Your task to perform on an android device: turn on airplane mode Image 0: 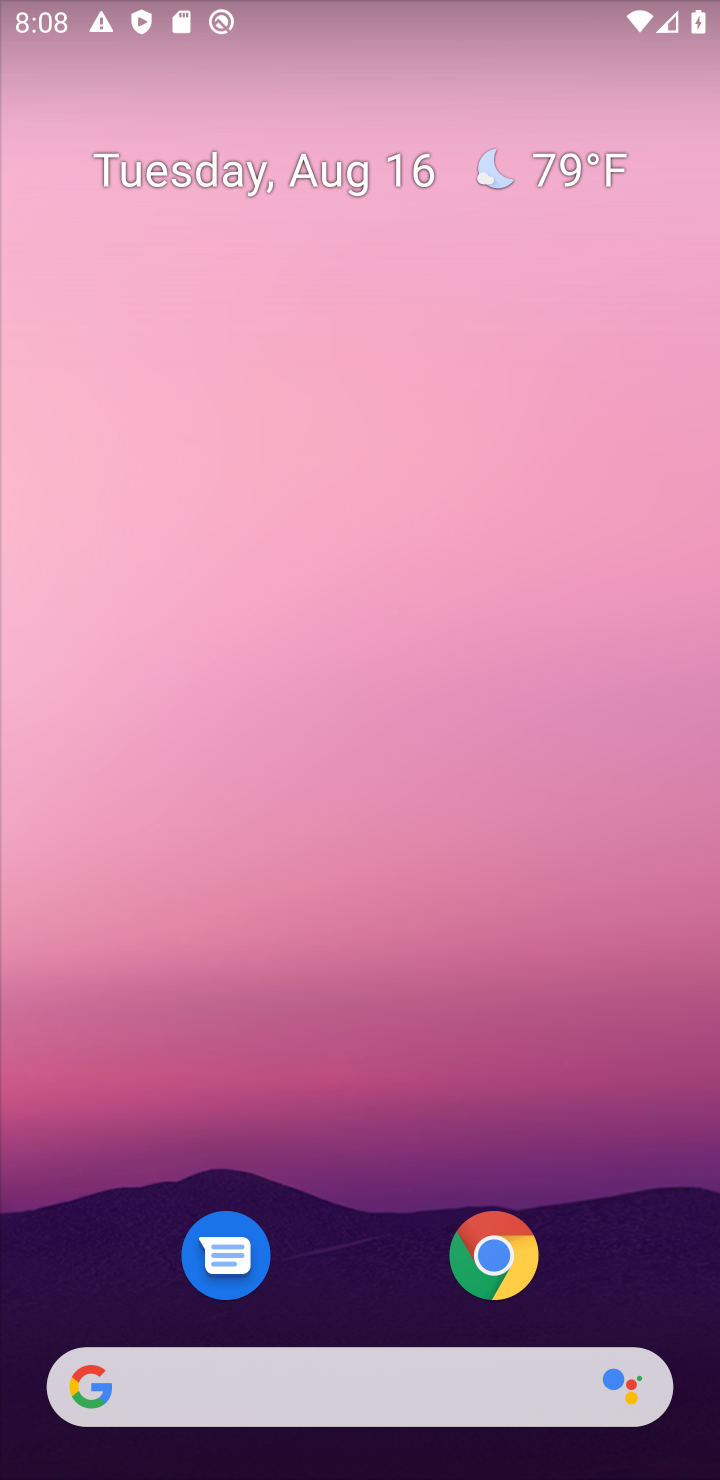
Step 0: drag from (429, 1339) to (359, 196)
Your task to perform on an android device: turn on airplane mode Image 1: 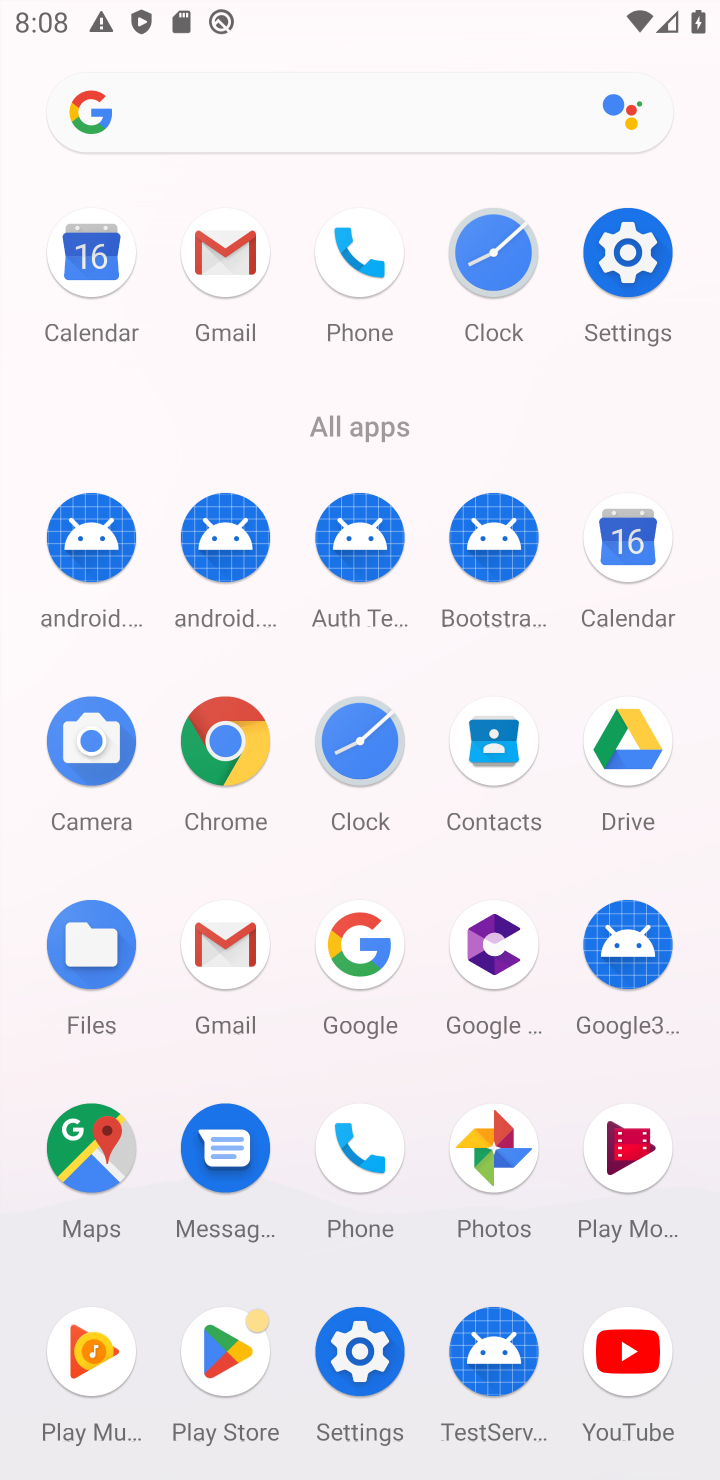
Step 1: click (641, 248)
Your task to perform on an android device: turn on airplane mode Image 2: 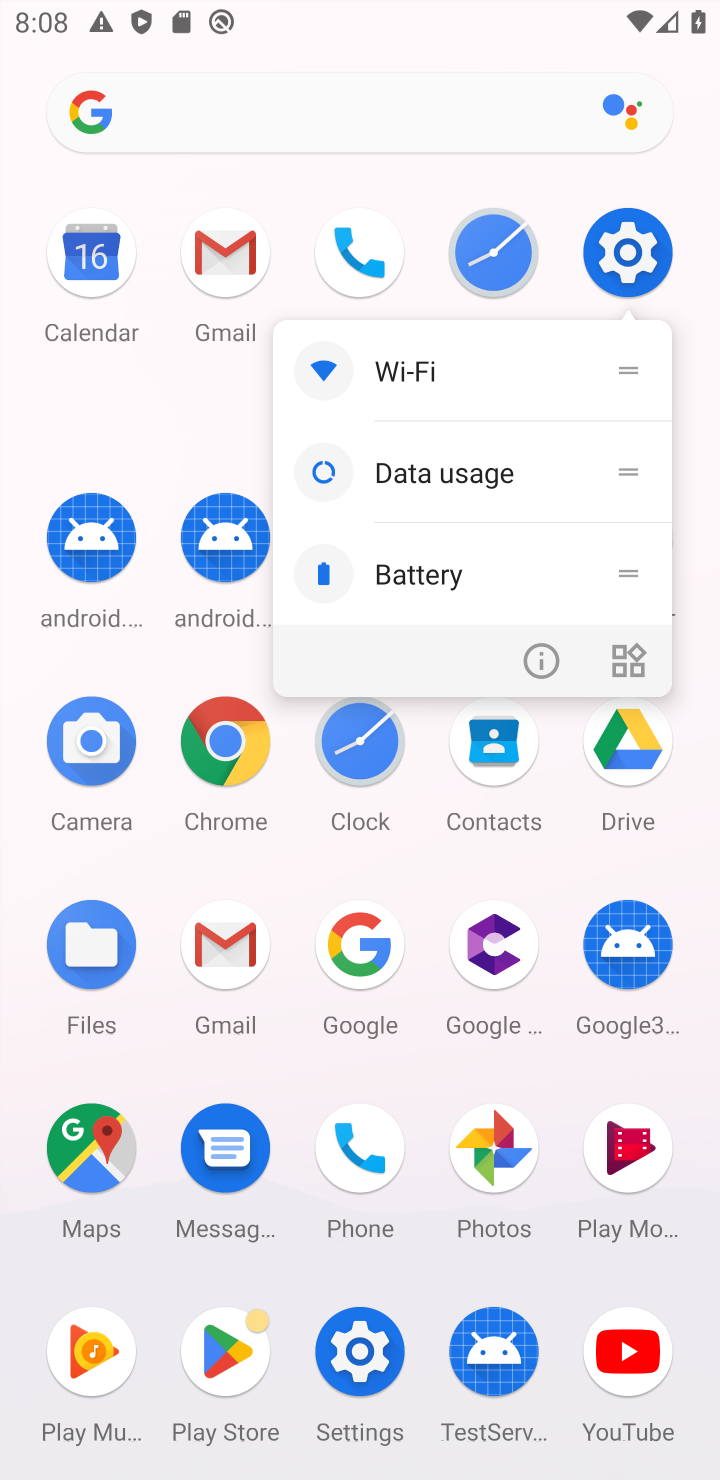
Step 2: click (641, 248)
Your task to perform on an android device: turn on airplane mode Image 3: 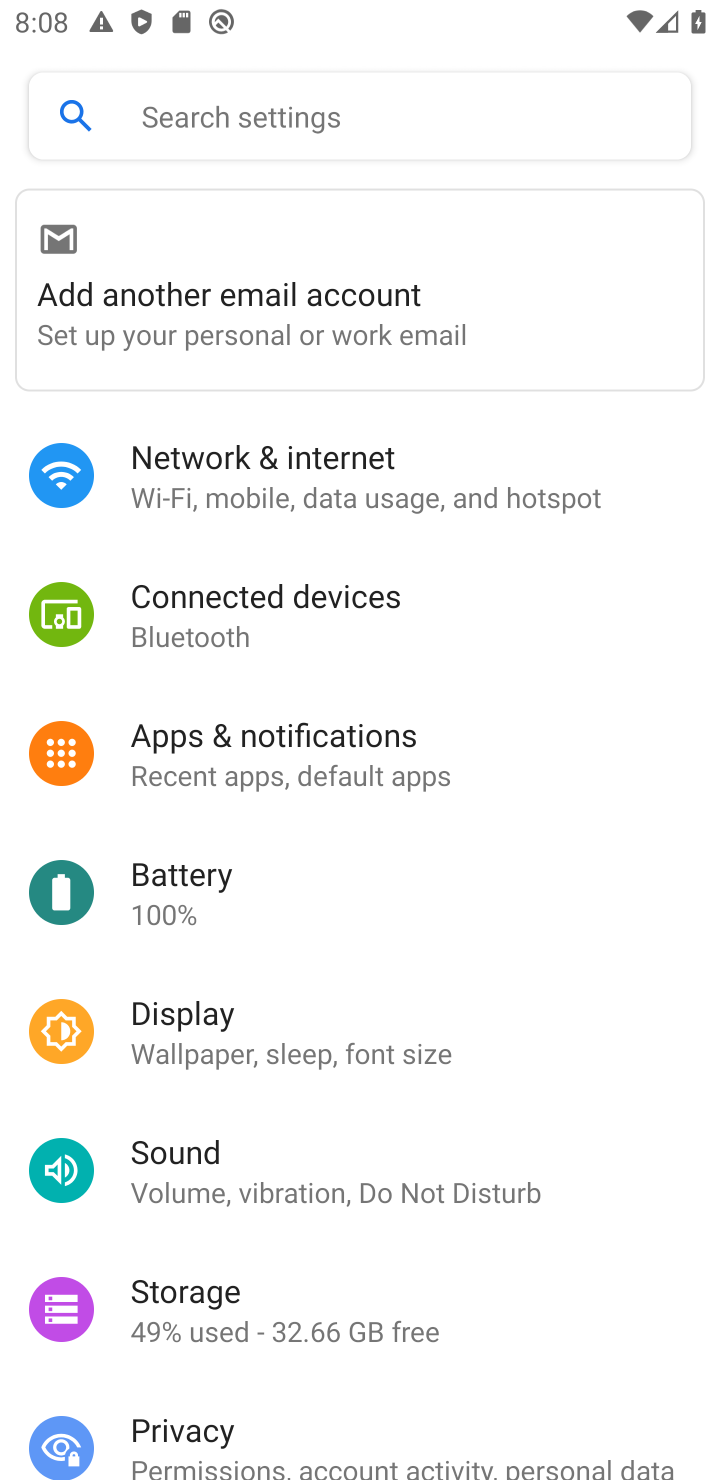
Step 3: click (344, 436)
Your task to perform on an android device: turn on airplane mode Image 4: 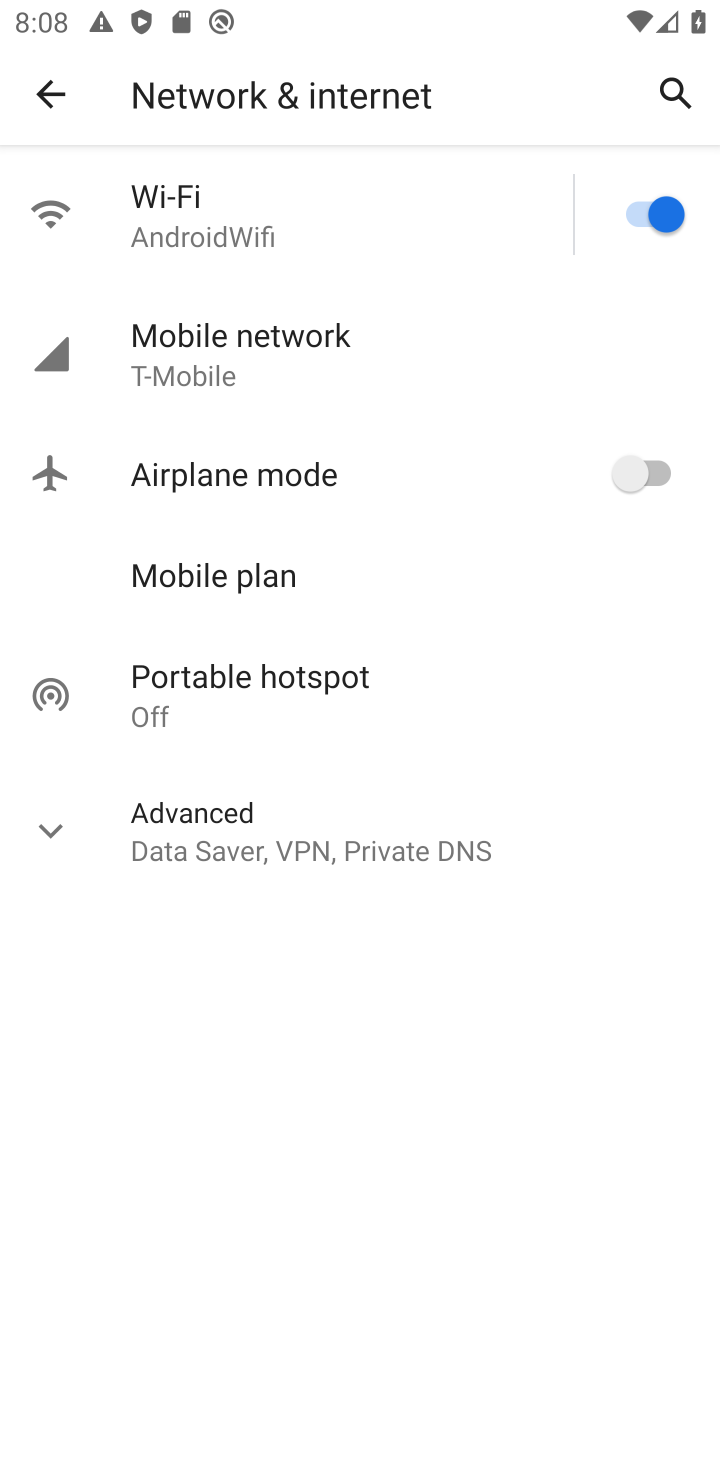
Step 4: click (641, 478)
Your task to perform on an android device: turn on airplane mode Image 5: 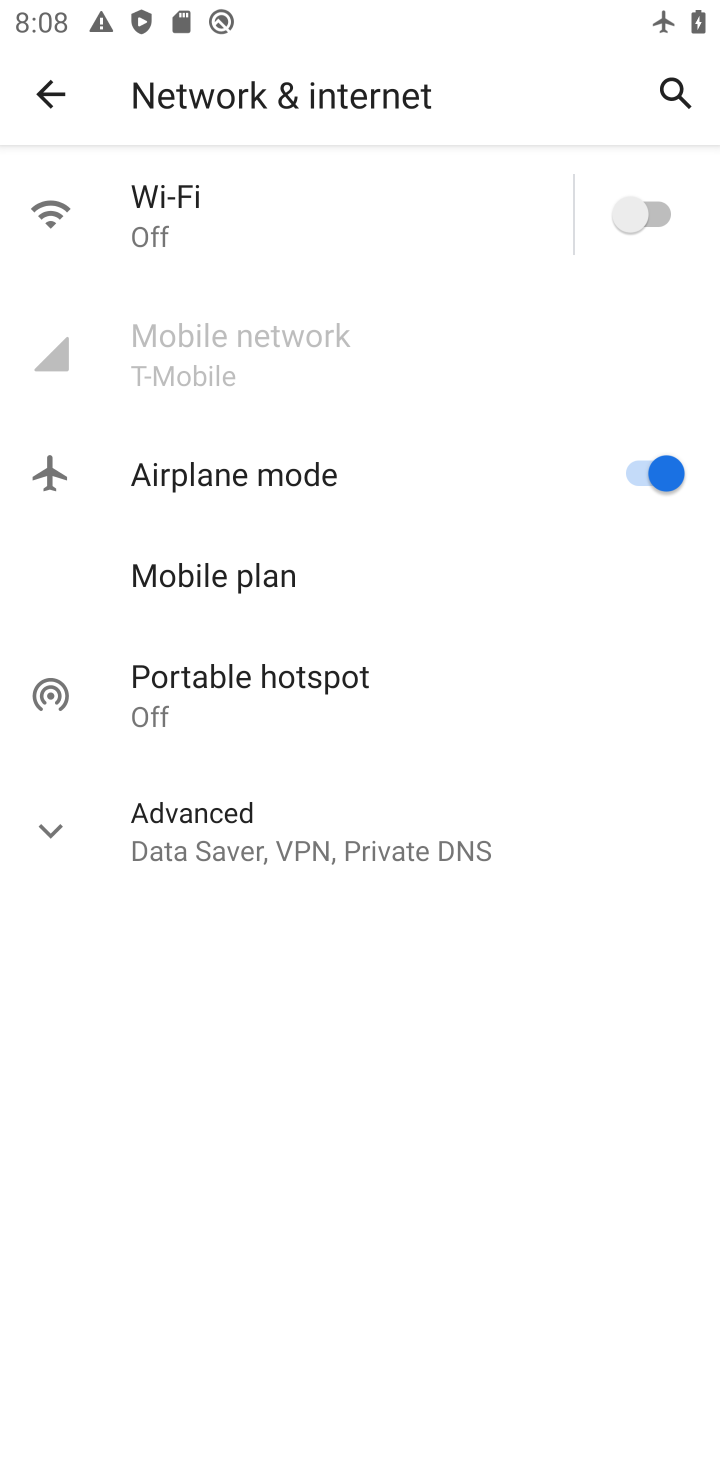
Step 5: task complete